Your task to perform on an android device: turn pop-ups off in chrome Image 0: 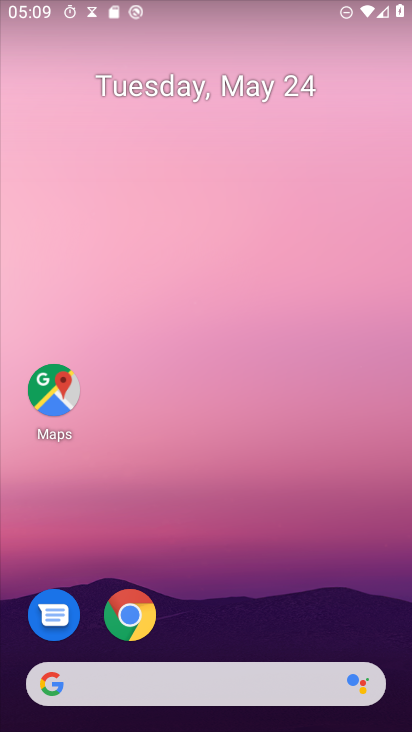
Step 0: click (146, 605)
Your task to perform on an android device: turn pop-ups off in chrome Image 1: 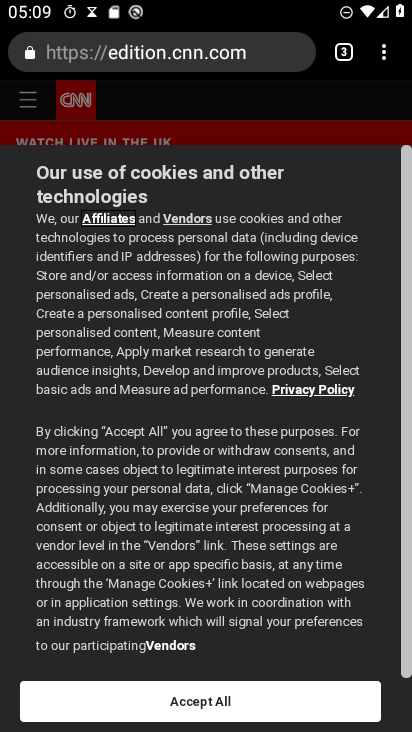
Step 1: drag from (381, 46) to (230, 581)
Your task to perform on an android device: turn pop-ups off in chrome Image 2: 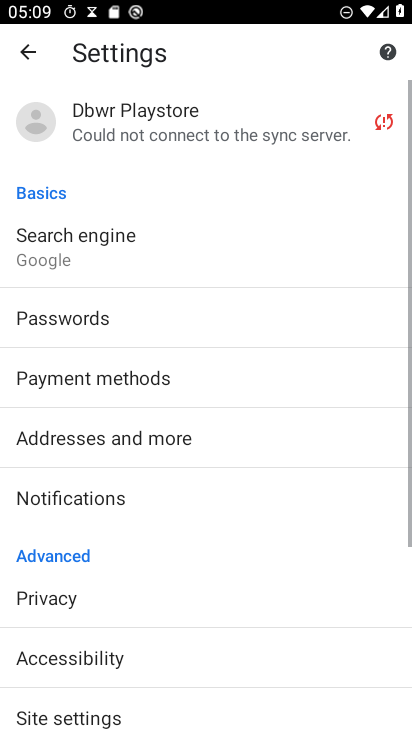
Step 2: drag from (170, 580) to (309, 63)
Your task to perform on an android device: turn pop-ups off in chrome Image 3: 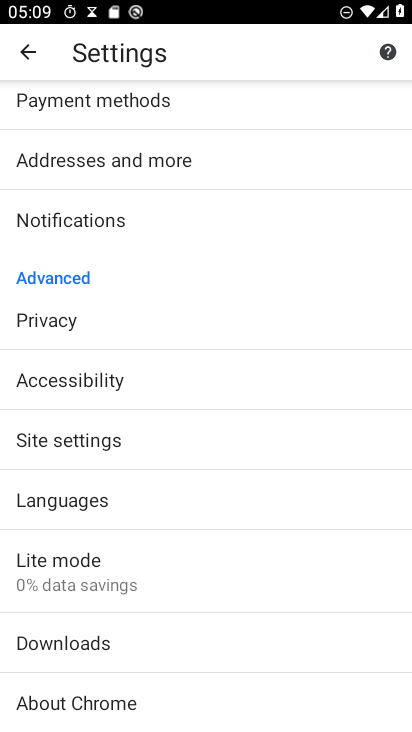
Step 3: click (41, 433)
Your task to perform on an android device: turn pop-ups off in chrome Image 4: 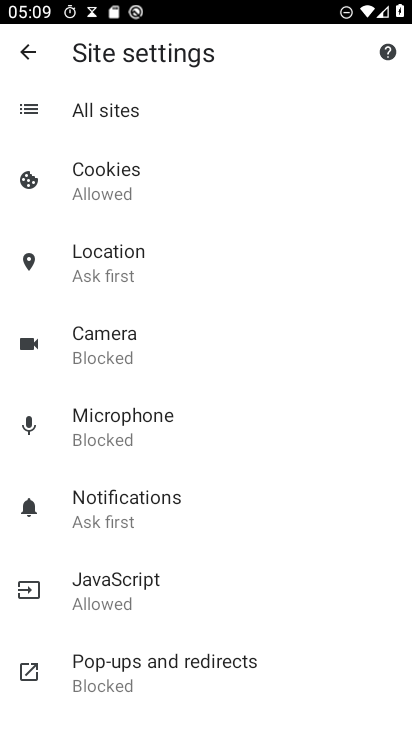
Step 4: click (138, 682)
Your task to perform on an android device: turn pop-ups off in chrome Image 5: 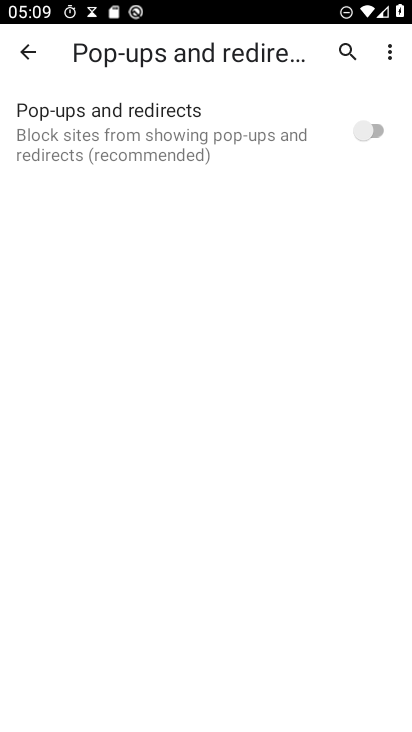
Step 5: task complete